Your task to perform on an android device: Open settings Image 0: 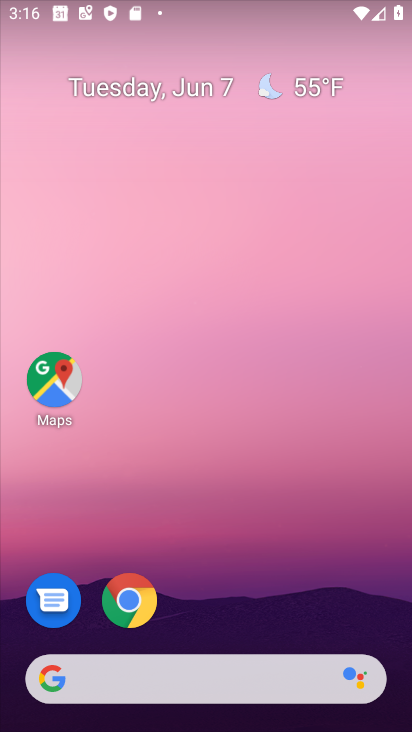
Step 0: drag from (204, 589) to (181, 134)
Your task to perform on an android device: Open settings Image 1: 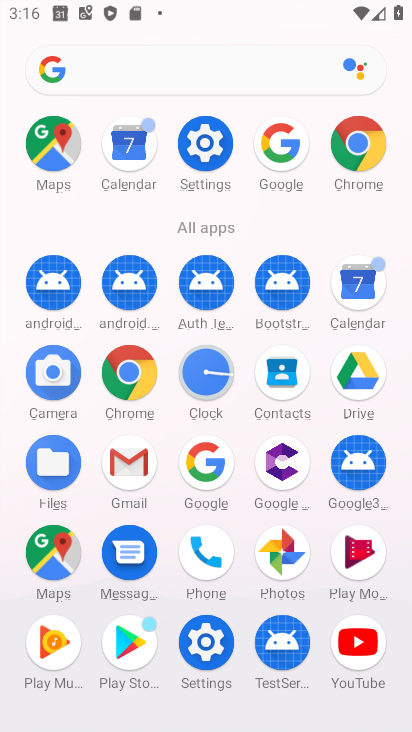
Step 1: click (205, 151)
Your task to perform on an android device: Open settings Image 2: 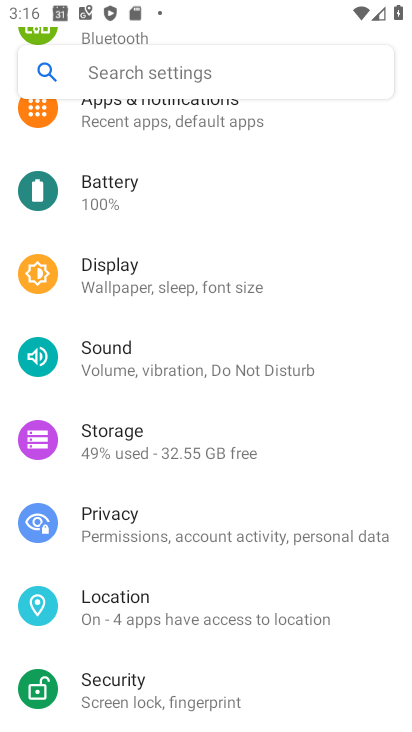
Step 2: task complete